Your task to perform on an android device: change the clock display to digital Image 0: 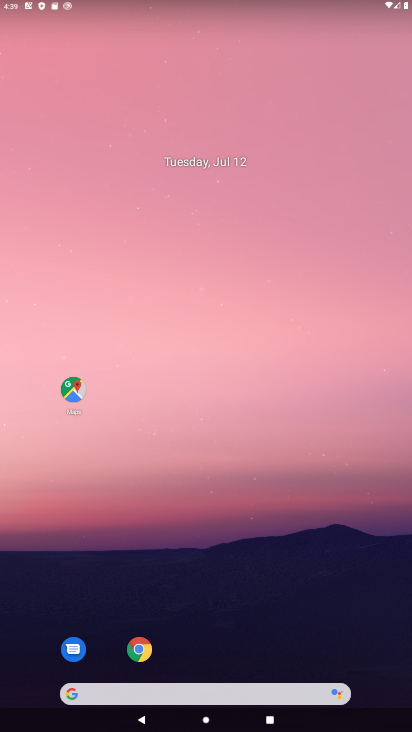
Step 0: drag from (172, 680) to (218, 172)
Your task to perform on an android device: change the clock display to digital Image 1: 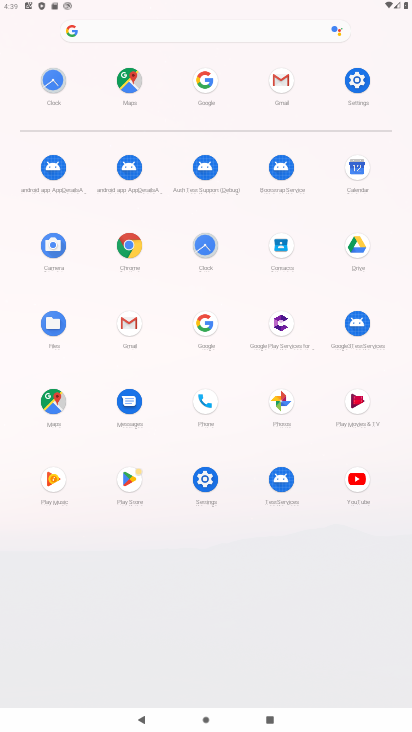
Step 1: click (206, 247)
Your task to perform on an android device: change the clock display to digital Image 2: 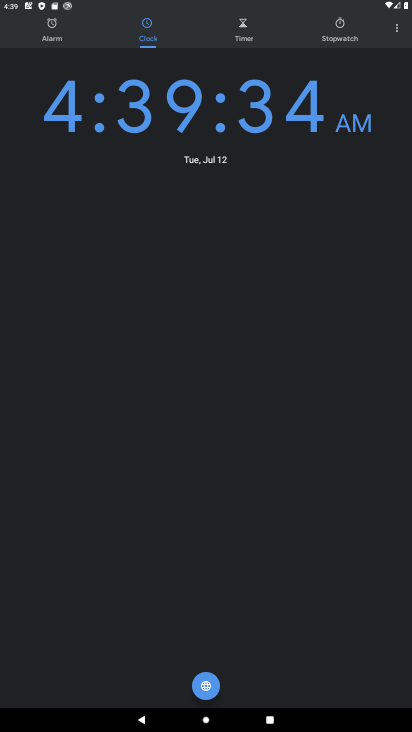
Step 2: click (398, 30)
Your task to perform on an android device: change the clock display to digital Image 3: 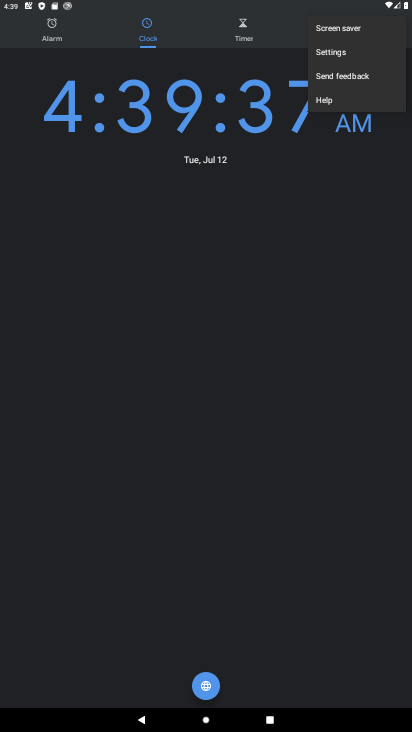
Step 3: click (347, 53)
Your task to perform on an android device: change the clock display to digital Image 4: 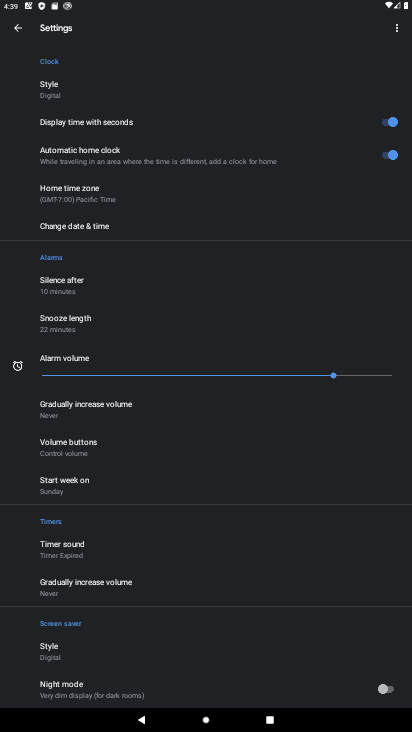
Step 4: click (52, 99)
Your task to perform on an android device: change the clock display to digital Image 5: 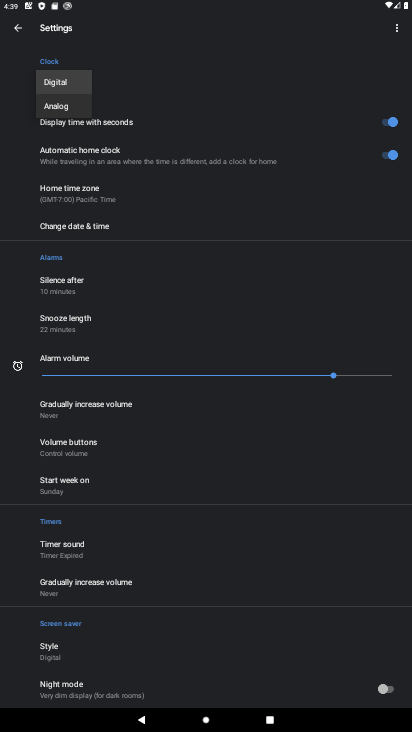
Step 5: click (64, 80)
Your task to perform on an android device: change the clock display to digital Image 6: 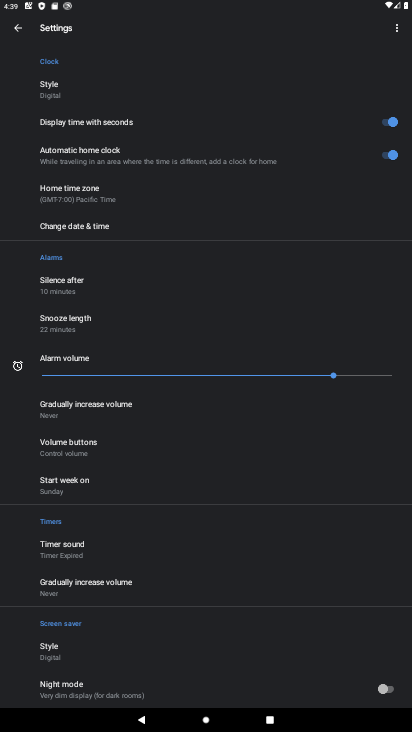
Step 6: task complete